Your task to perform on an android device: Open calendar and show me the second week of next month Image 0: 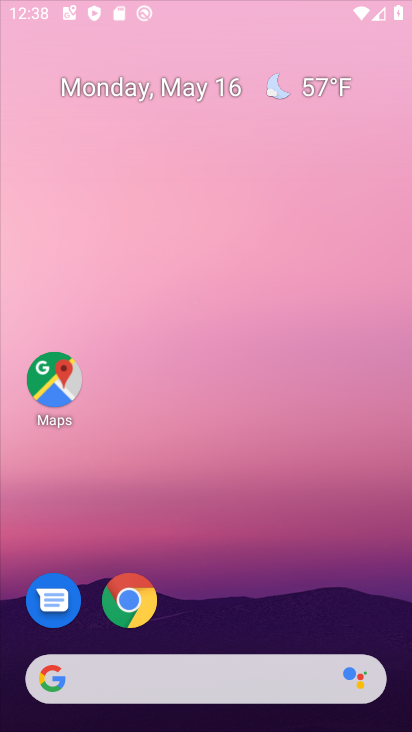
Step 0: click (133, 590)
Your task to perform on an android device: Open calendar and show me the second week of next month Image 1: 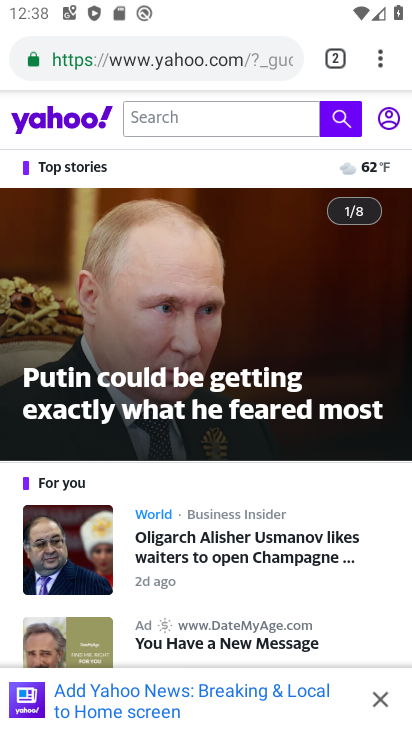
Step 1: press back button
Your task to perform on an android device: Open calendar and show me the second week of next month Image 2: 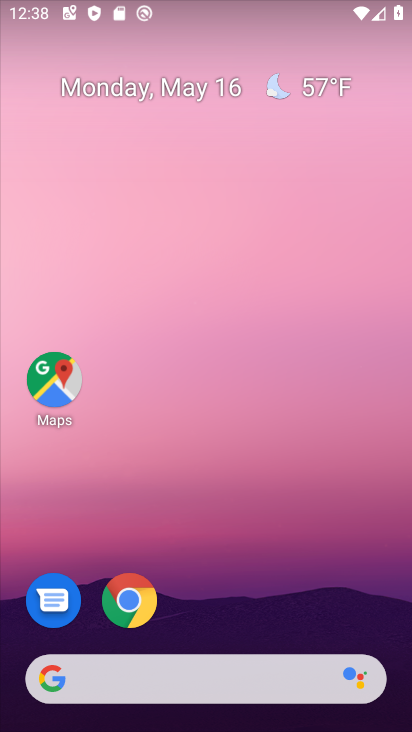
Step 2: drag from (307, 577) to (342, 89)
Your task to perform on an android device: Open calendar and show me the second week of next month Image 3: 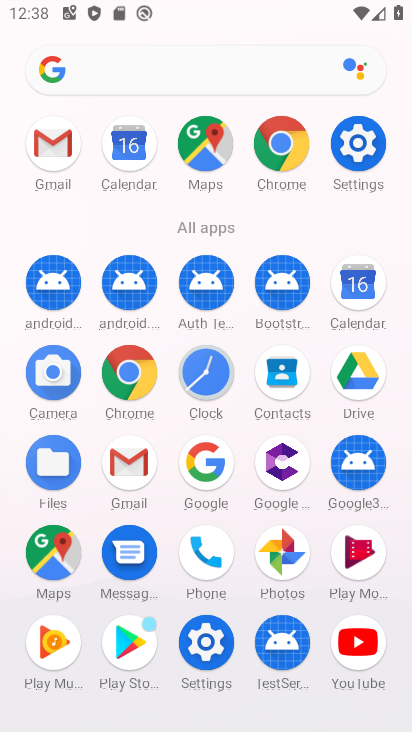
Step 3: click (359, 319)
Your task to perform on an android device: Open calendar and show me the second week of next month Image 4: 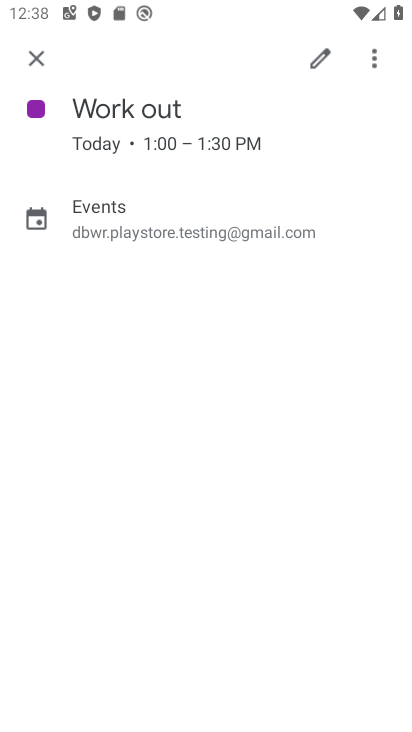
Step 4: click (34, 50)
Your task to perform on an android device: Open calendar and show me the second week of next month Image 5: 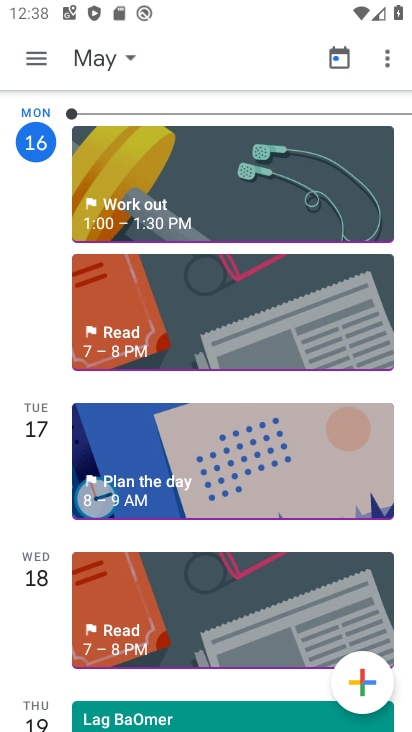
Step 5: click (111, 64)
Your task to perform on an android device: Open calendar and show me the second week of next month Image 6: 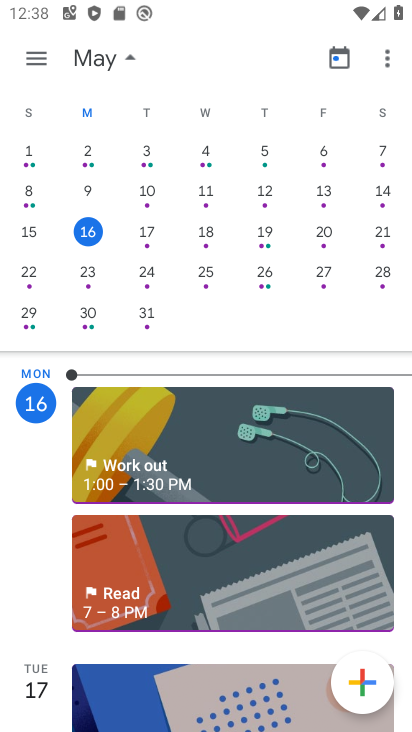
Step 6: drag from (348, 233) to (37, 222)
Your task to perform on an android device: Open calendar and show me the second week of next month Image 7: 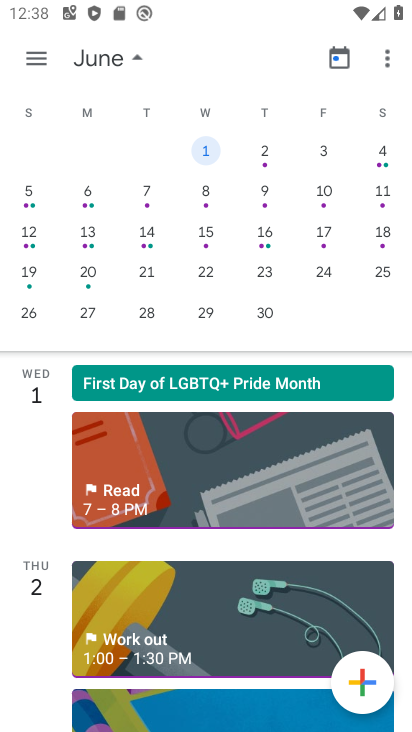
Step 7: click (84, 188)
Your task to perform on an android device: Open calendar and show me the second week of next month Image 8: 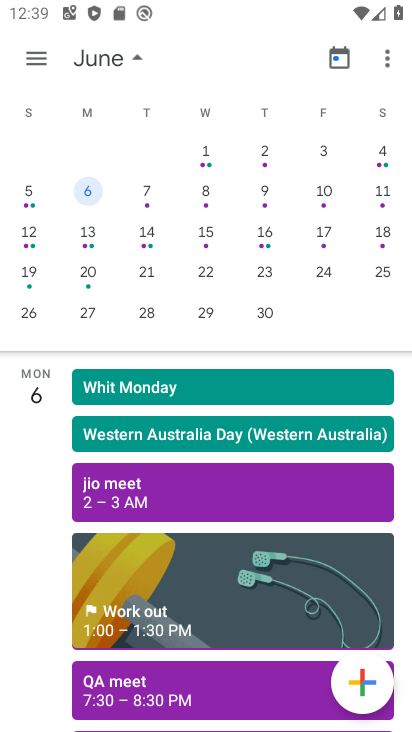
Step 8: task complete